Your task to perform on an android device: Set the phone to "Do not disturb". Image 0: 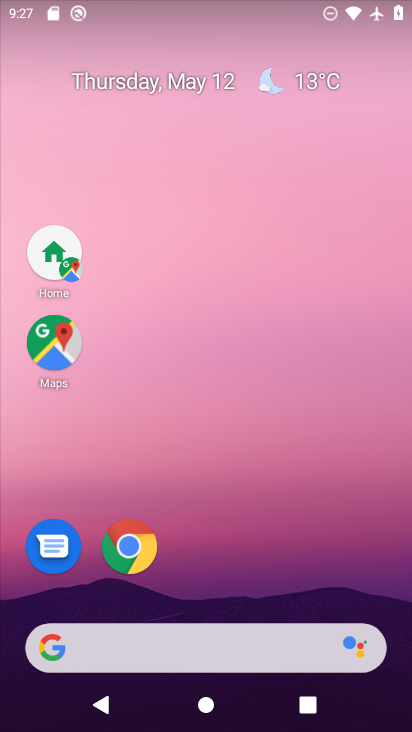
Step 0: drag from (173, 647) to (340, 148)
Your task to perform on an android device: Set the phone to "Do not disturb". Image 1: 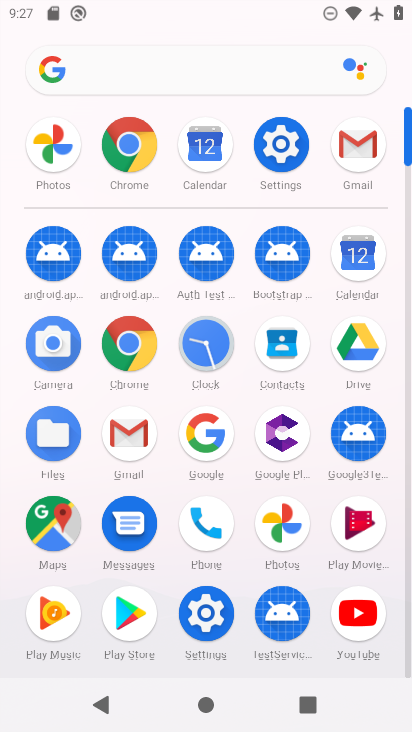
Step 1: click (288, 155)
Your task to perform on an android device: Set the phone to "Do not disturb". Image 2: 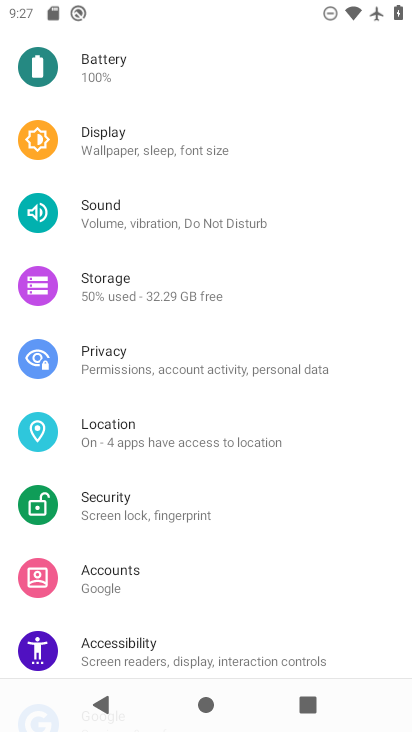
Step 2: click (168, 215)
Your task to perform on an android device: Set the phone to "Do not disturb". Image 3: 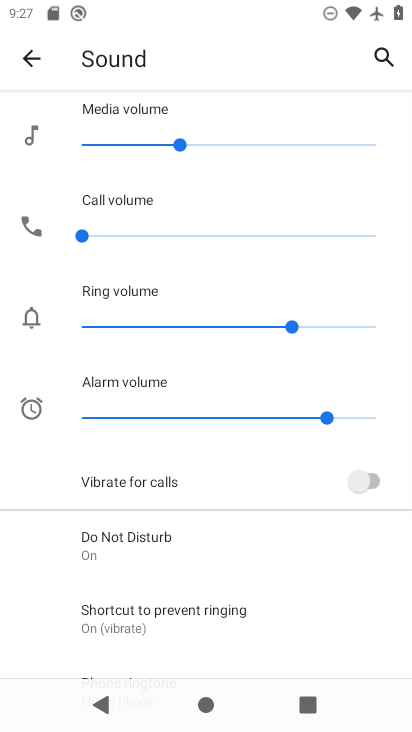
Step 3: click (145, 530)
Your task to perform on an android device: Set the phone to "Do not disturb". Image 4: 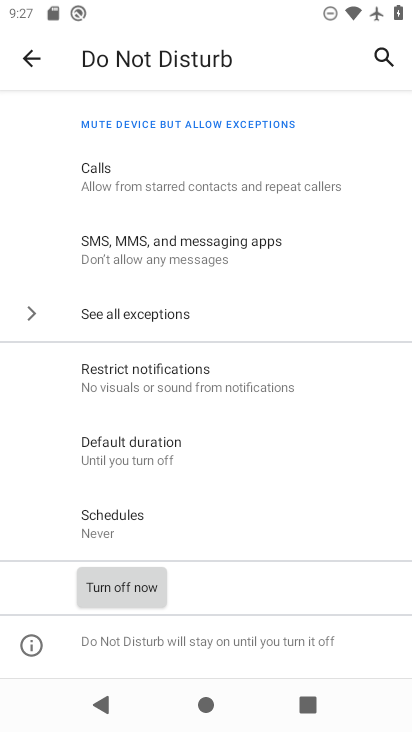
Step 4: task complete